Your task to perform on an android device: Is it going to rain tomorrow? Image 0: 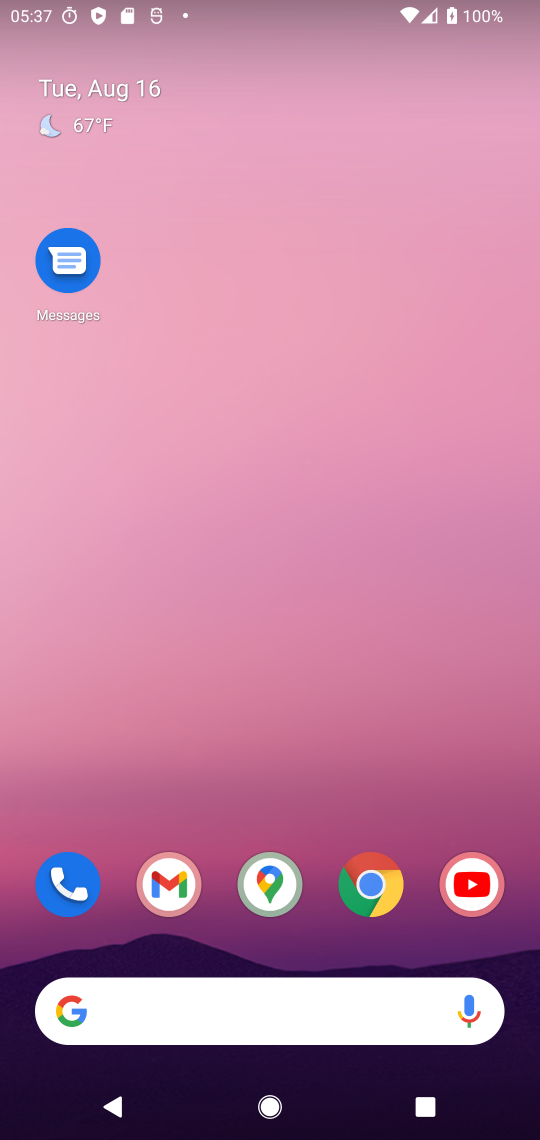
Step 0: click (141, 1016)
Your task to perform on an android device: Is it going to rain tomorrow? Image 1: 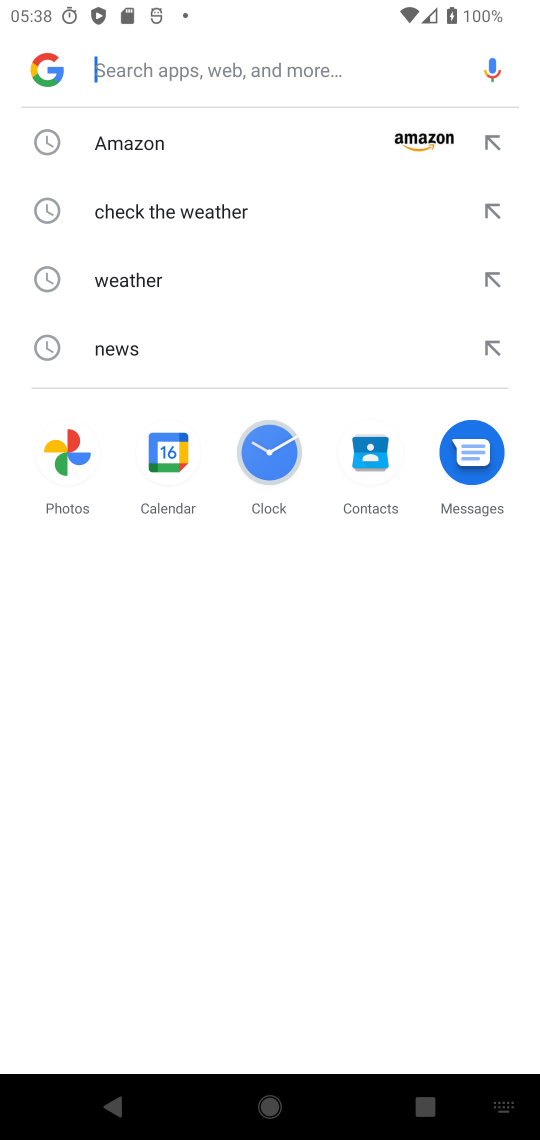
Step 1: type "Is it going to rain tomorrow?"
Your task to perform on an android device: Is it going to rain tomorrow? Image 2: 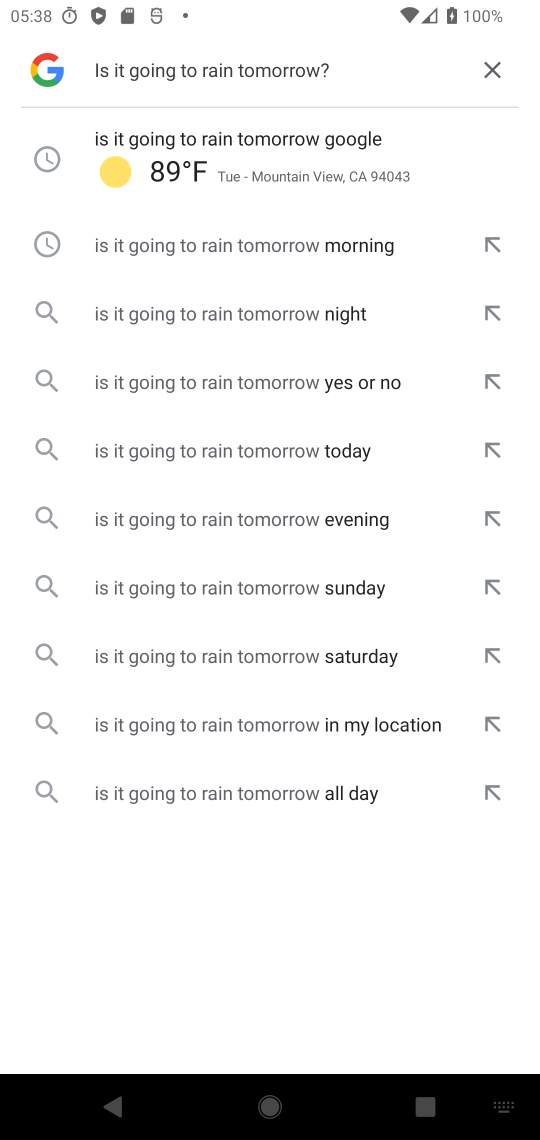
Step 2: type ""
Your task to perform on an android device: Is it going to rain tomorrow? Image 3: 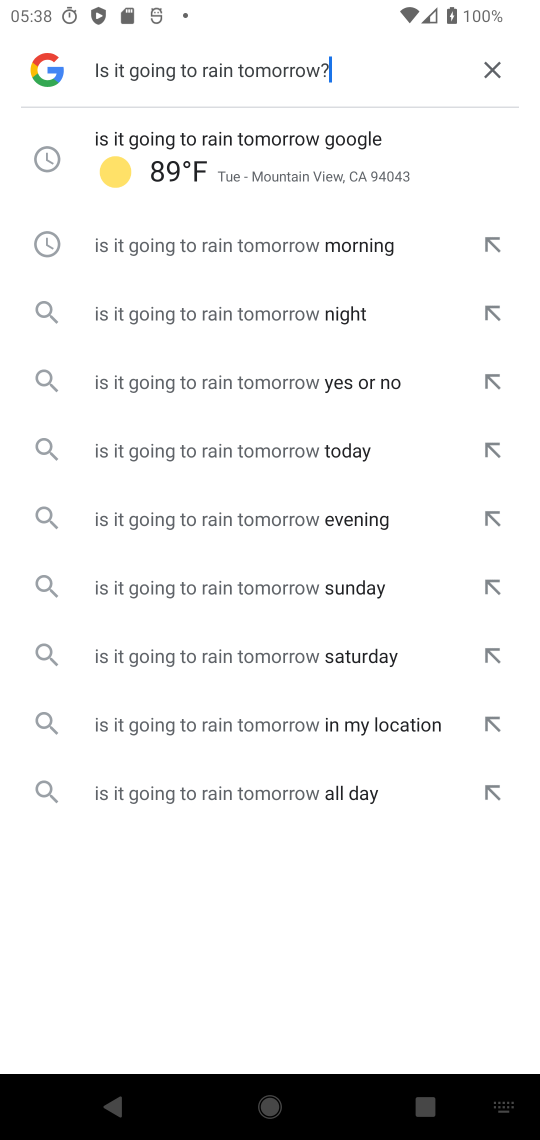
Step 3: type ""
Your task to perform on an android device: Is it going to rain tomorrow? Image 4: 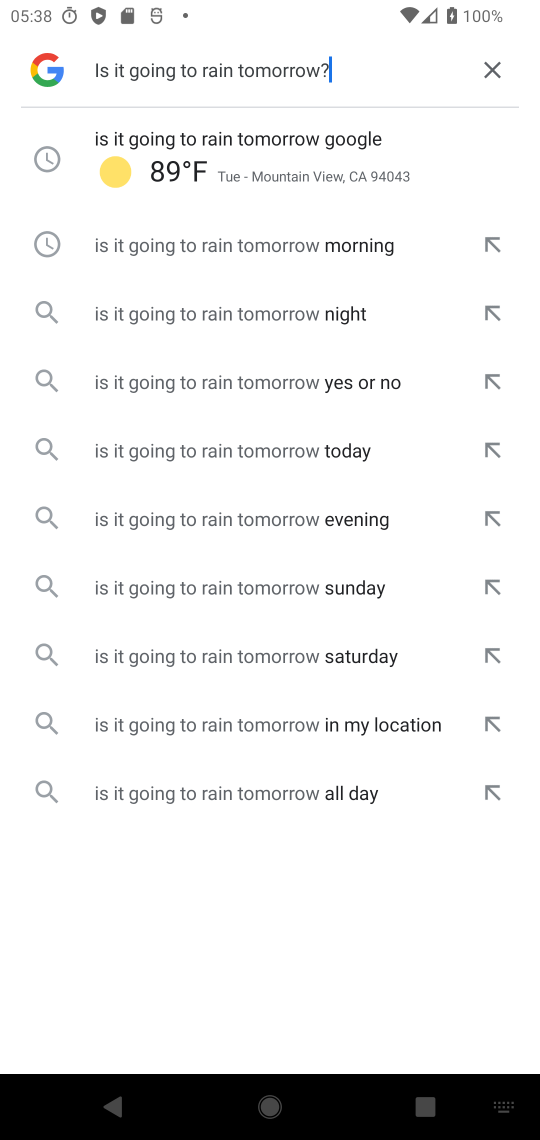
Step 4: task complete